Your task to perform on an android device: turn off data saver in the chrome app Image 0: 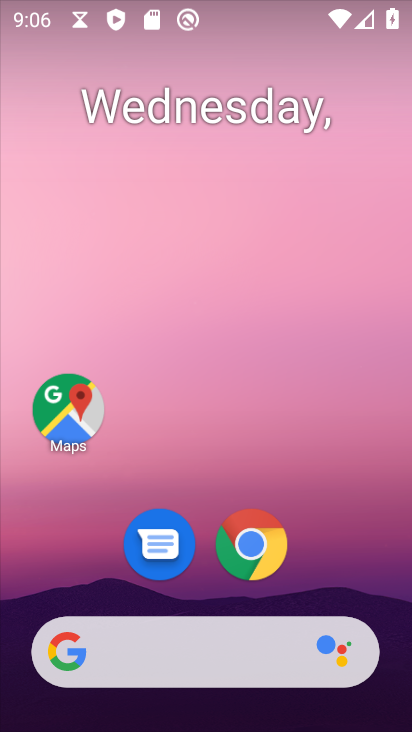
Step 0: drag from (158, 653) to (237, 83)
Your task to perform on an android device: turn off data saver in the chrome app Image 1: 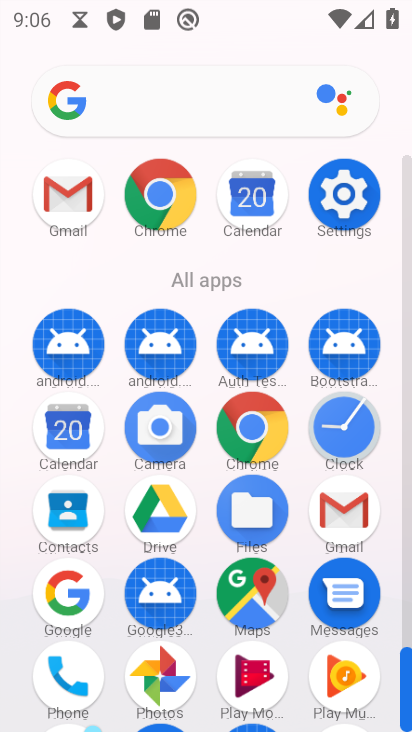
Step 1: click (158, 188)
Your task to perform on an android device: turn off data saver in the chrome app Image 2: 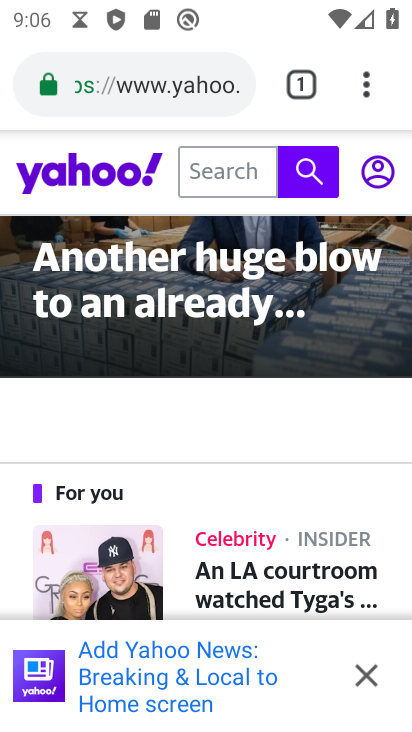
Step 2: click (359, 103)
Your task to perform on an android device: turn off data saver in the chrome app Image 3: 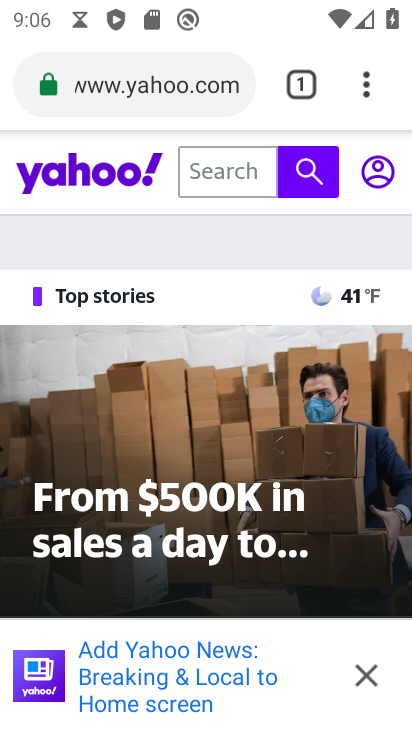
Step 3: click (359, 103)
Your task to perform on an android device: turn off data saver in the chrome app Image 4: 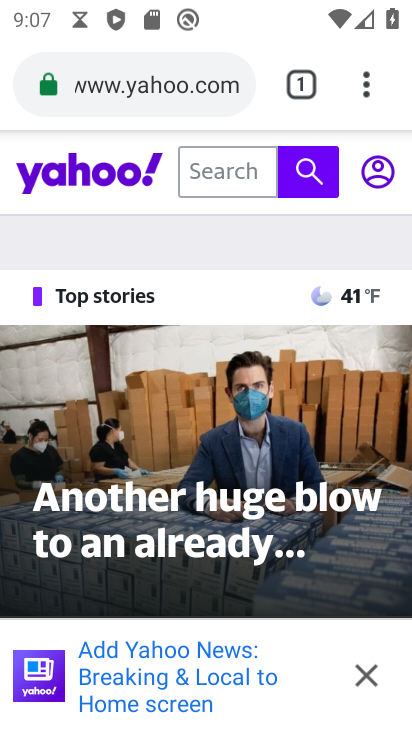
Step 4: click (369, 99)
Your task to perform on an android device: turn off data saver in the chrome app Image 5: 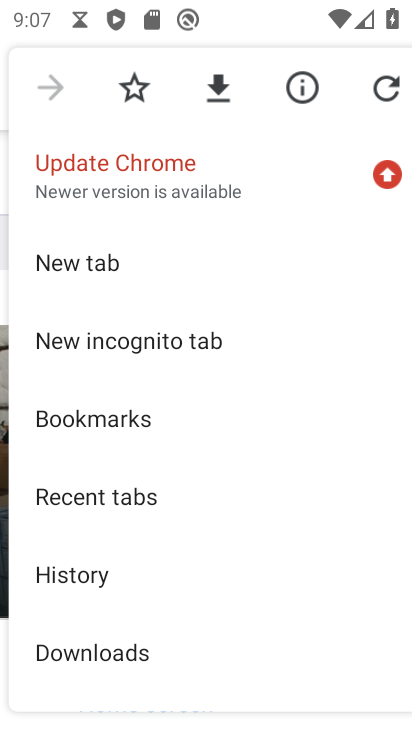
Step 5: drag from (194, 517) to (403, 0)
Your task to perform on an android device: turn off data saver in the chrome app Image 6: 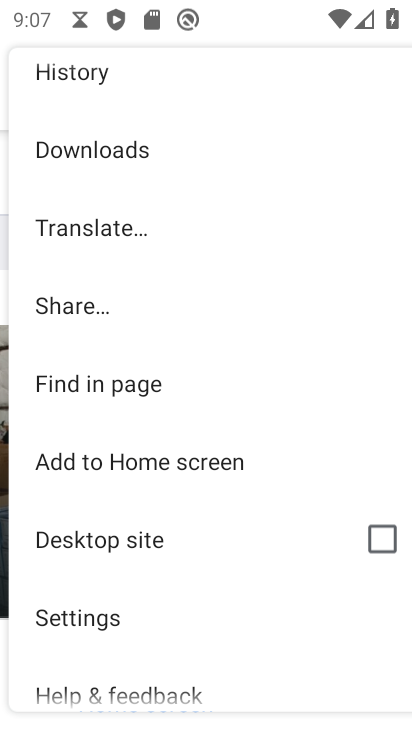
Step 6: click (110, 622)
Your task to perform on an android device: turn off data saver in the chrome app Image 7: 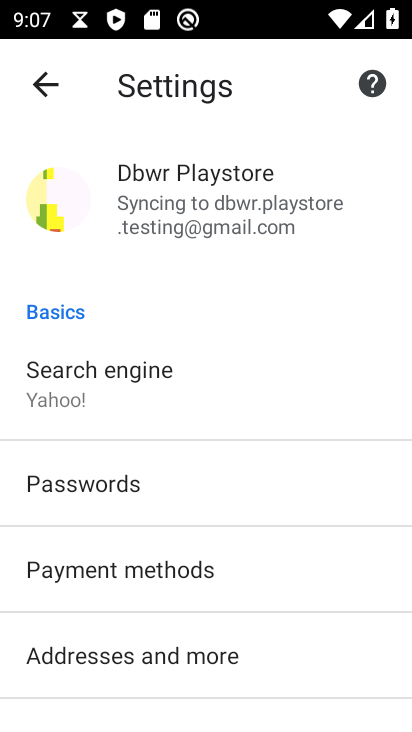
Step 7: drag from (139, 617) to (311, 107)
Your task to perform on an android device: turn off data saver in the chrome app Image 8: 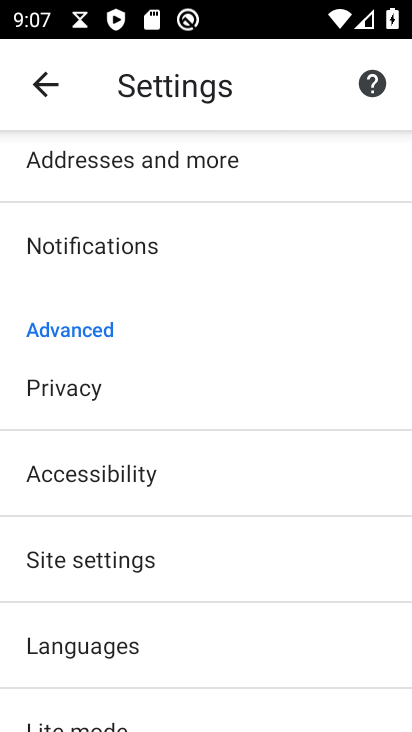
Step 8: drag from (170, 630) to (324, 256)
Your task to perform on an android device: turn off data saver in the chrome app Image 9: 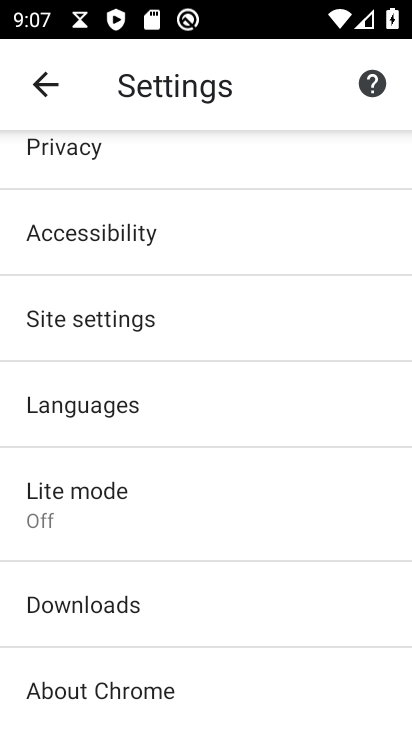
Step 9: click (134, 503)
Your task to perform on an android device: turn off data saver in the chrome app Image 10: 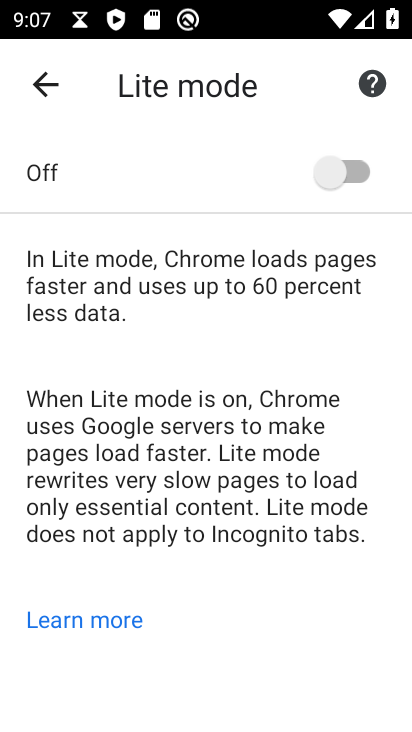
Step 10: task complete